Your task to perform on an android device: Open the phone app and click the voicemail tab. Image 0: 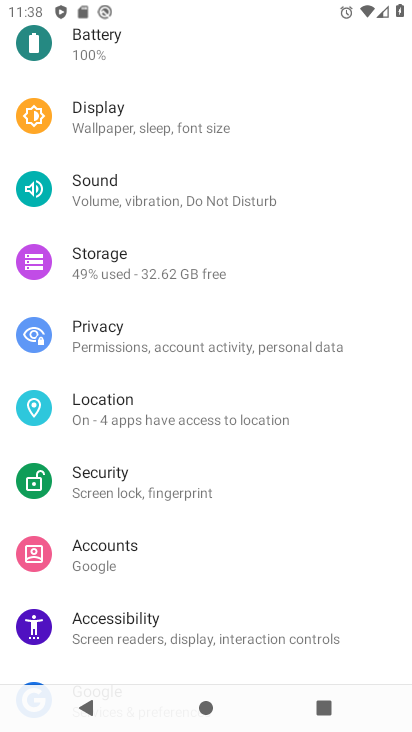
Step 0: press home button
Your task to perform on an android device: Open the phone app and click the voicemail tab. Image 1: 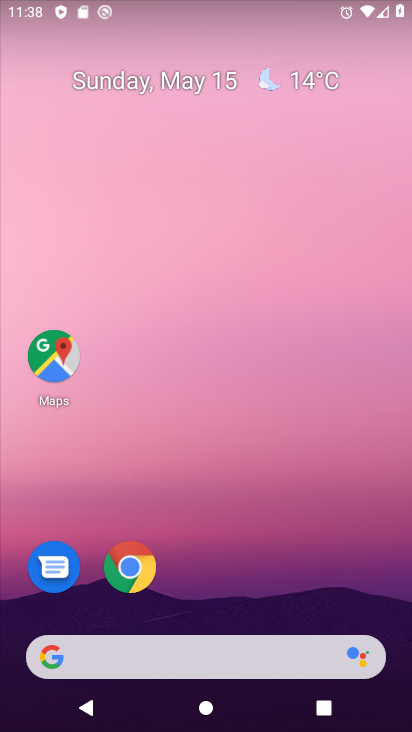
Step 1: drag from (233, 588) to (263, 34)
Your task to perform on an android device: Open the phone app and click the voicemail tab. Image 2: 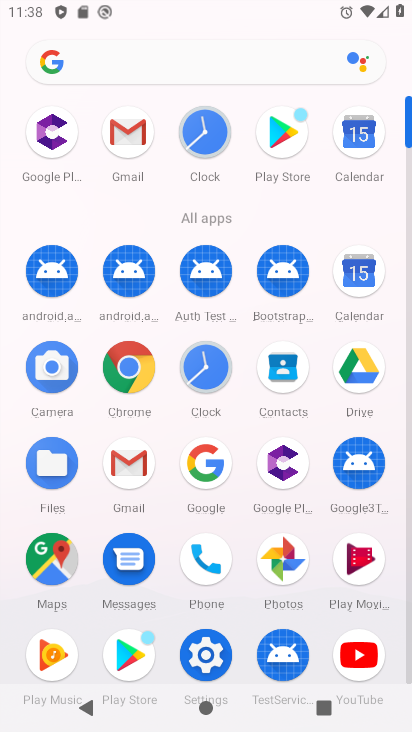
Step 2: click (204, 564)
Your task to perform on an android device: Open the phone app and click the voicemail tab. Image 3: 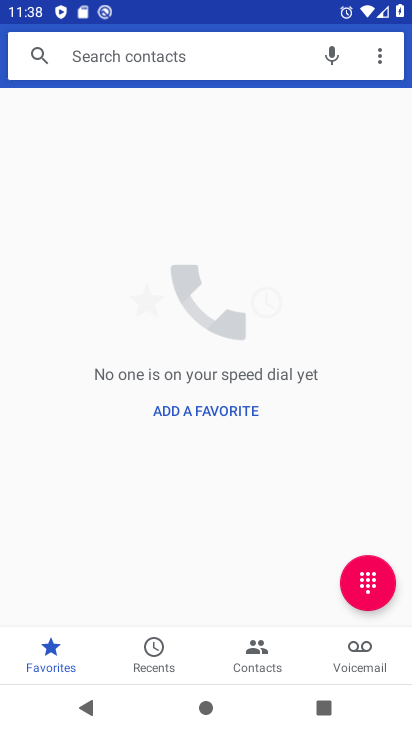
Step 3: click (368, 660)
Your task to perform on an android device: Open the phone app and click the voicemail tab. Image 4: 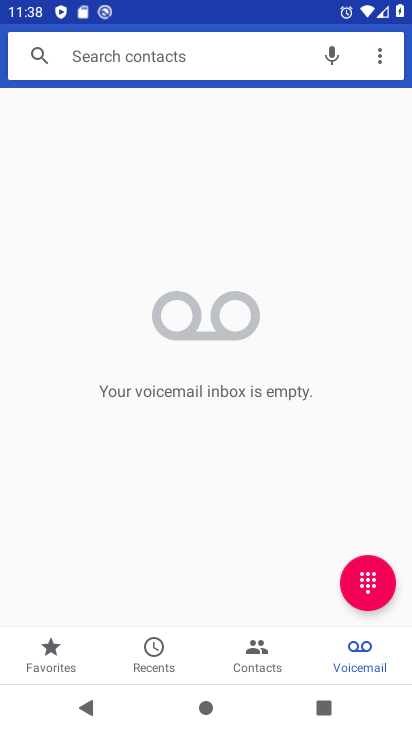
Step 4: task complete